Your task to perform on an android device: change notification settings in the gmail app Image 0: 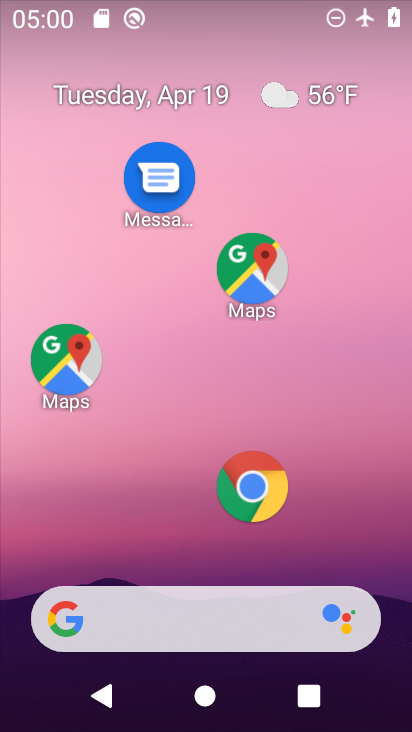
Step 0: drag from (334, 557) to (400, 118)
Your task to perform on an android device: change notification settings in the gmail app Image 1: 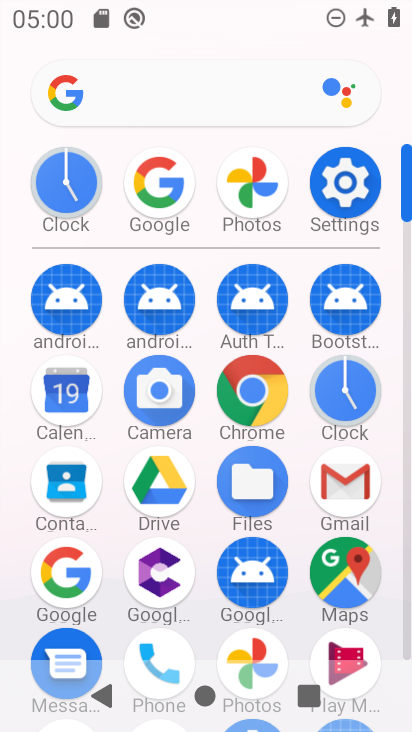
Step 1: click (363, 484)
Your task to perform on an android device: change notification settings in the gmail app Image 2: 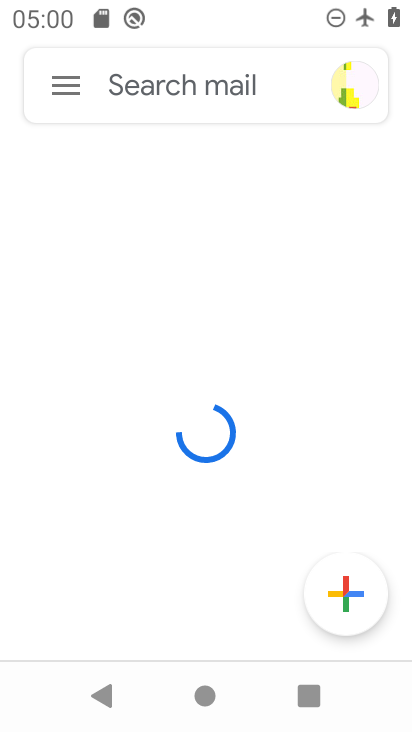
Step 2: click (66, 101)
Your task to perform on an android device: change notification settings in the gmail app Image 3: 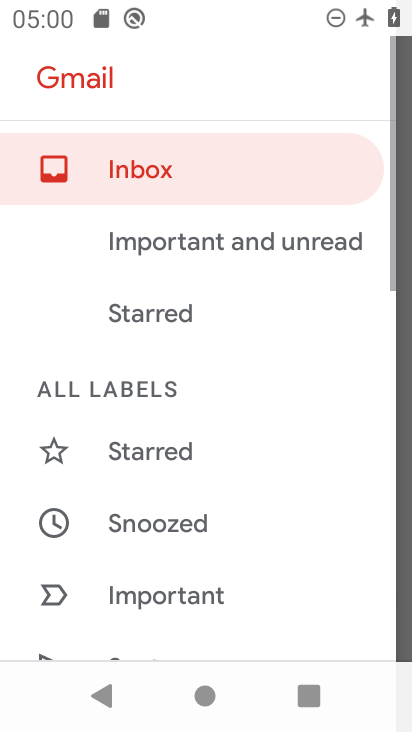
Step 3: drag from (177, 494) to (302, 77)
Your task to perform on an android device: change notification settings in the gmail app Image 4: 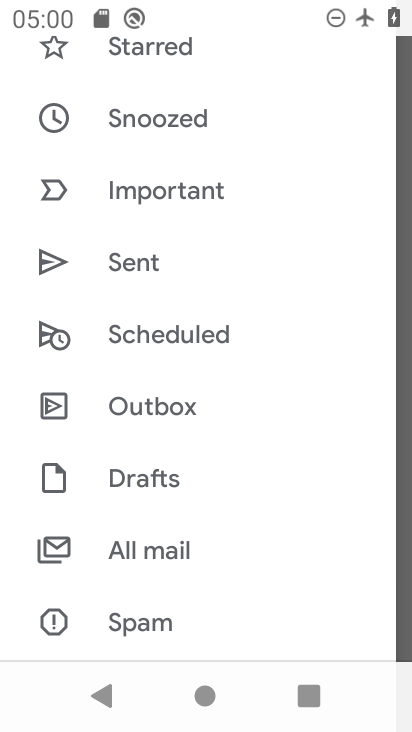
Step 4: drag from (197, 571) to (261, 74)
Your task to perform on an android device: change notification settings in the gmail app Image 5: 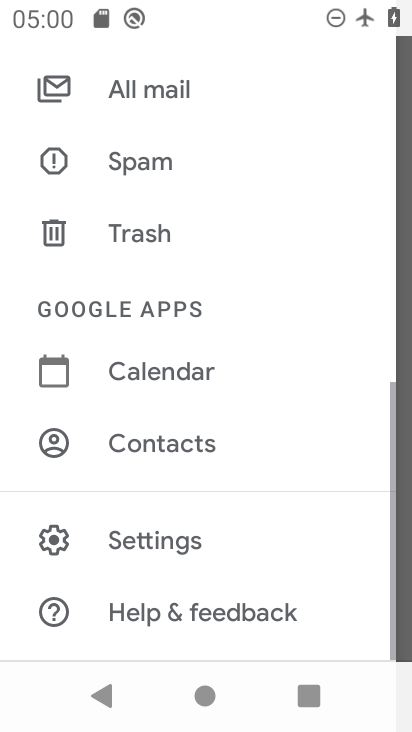
Step 5: click (177, 544)
Your task to perform on an android device: change notification settings in the gmail app Image 6: 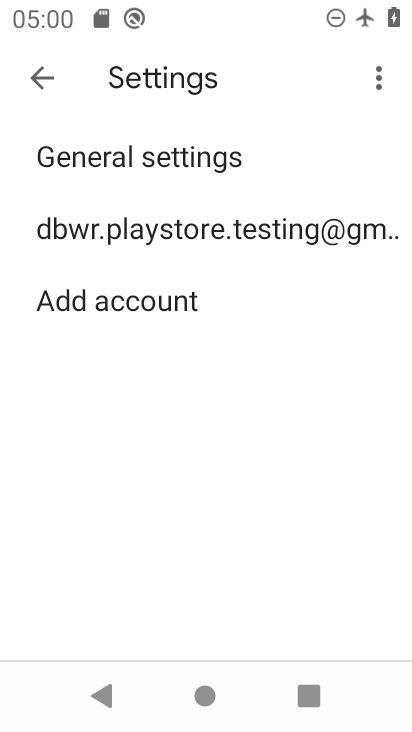
Step 6: click (208, 168)
Your task to perform on an android device: change notification settings in the gmail app Image 7: 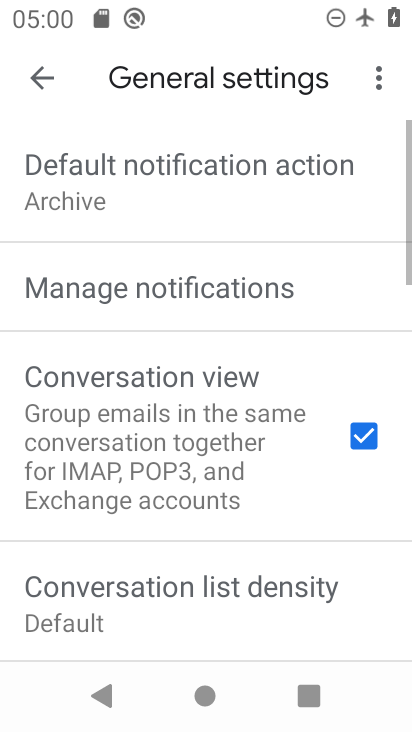
Step 7: click (232, 293)
Your task to perform on an android device: change notification settings in the gmail app Image 8: 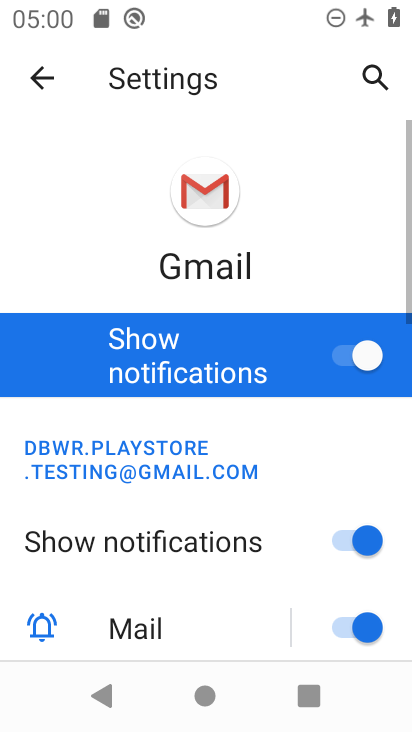
Step 8: click (342, 376)
Your task to perform on an android device: change notification settings in the gmail app Image 9: 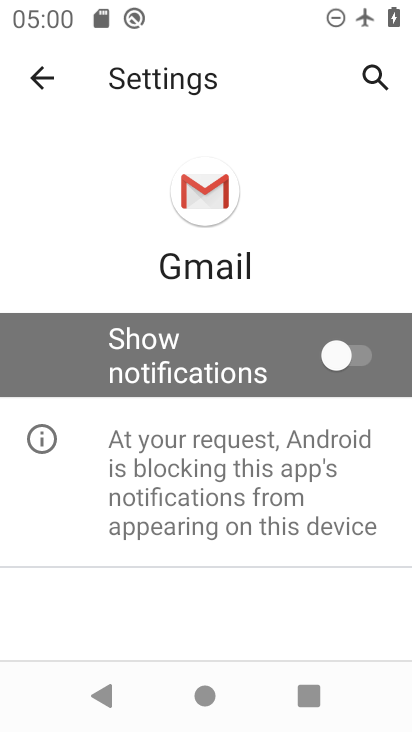
Step 9: task complete